Your task to perform on an android device: find which apps use the phone's location Image 0: 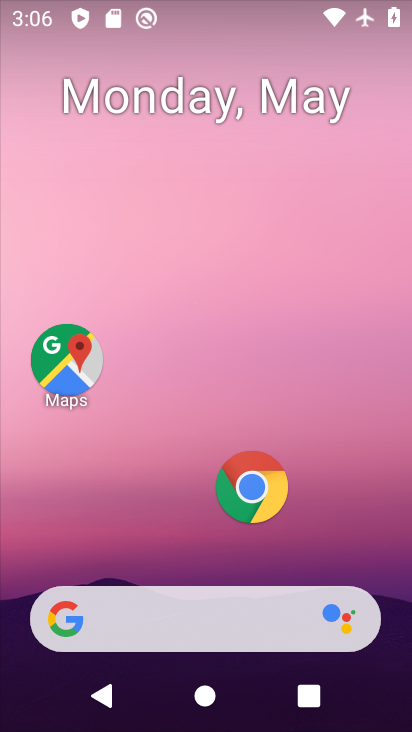
Step 0: drag from (143, 545) to (245, 2)
Your task to perform on an android device: find which apps use the phone's location Image 1: 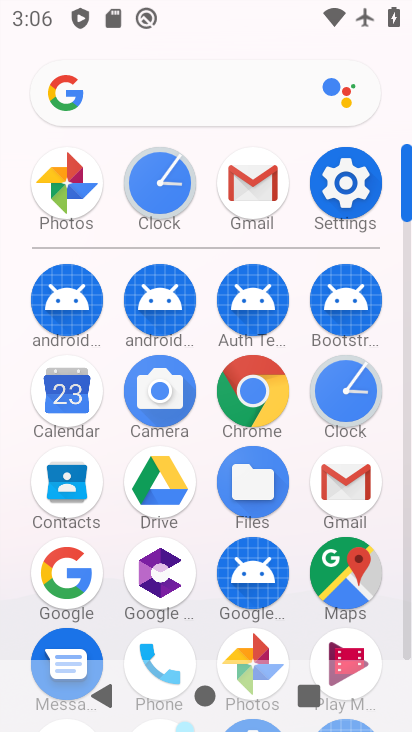
Step 1: click (334, 186)
Your task to perform on an android device: find which apps use the phone's location Image 2: 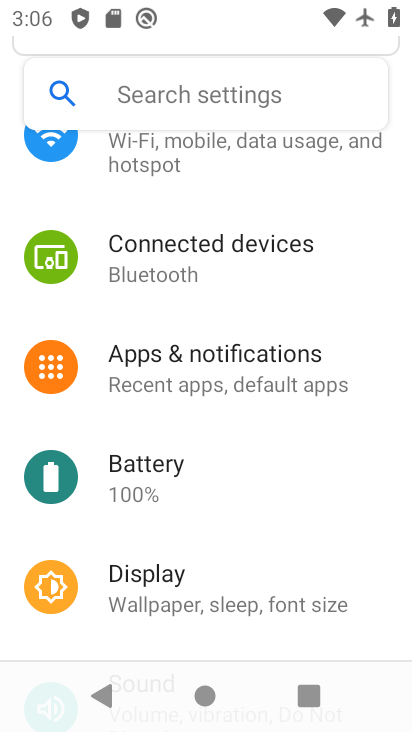
Step 2: drag from (167, 543) to (163, 325)
Your task to perform on an android device: find which apps use the phone's location Image 3: 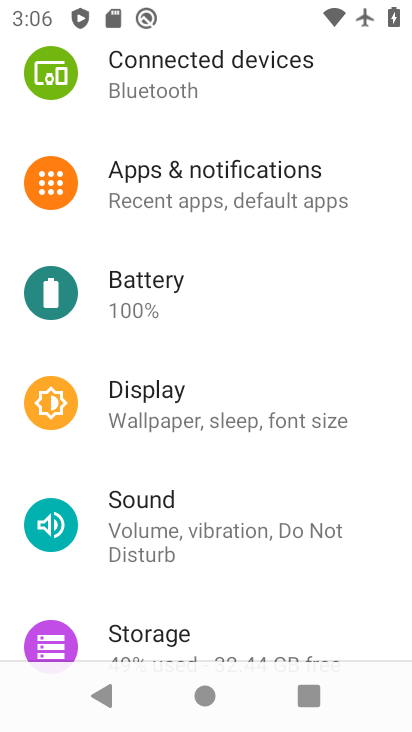
Step 3: drag from (203, 528) to (213, 356)
Your task to perform on an android device: find which apps use the phone's location Image 4: 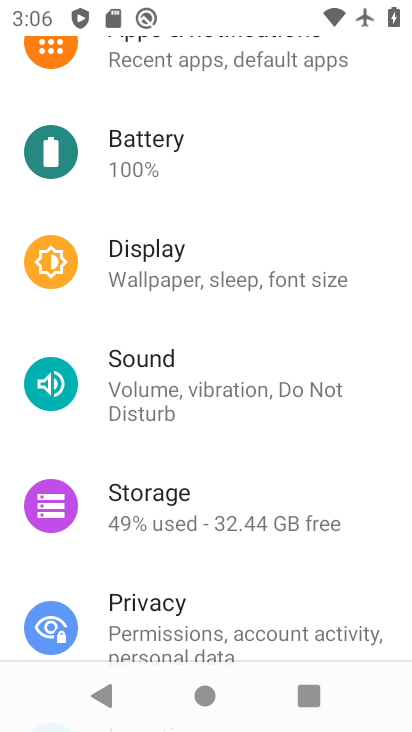
Step 4: drag from (231, 557) to (214, 317)
Your task to perform on an android device: find which apps use the phone's location Image 5: 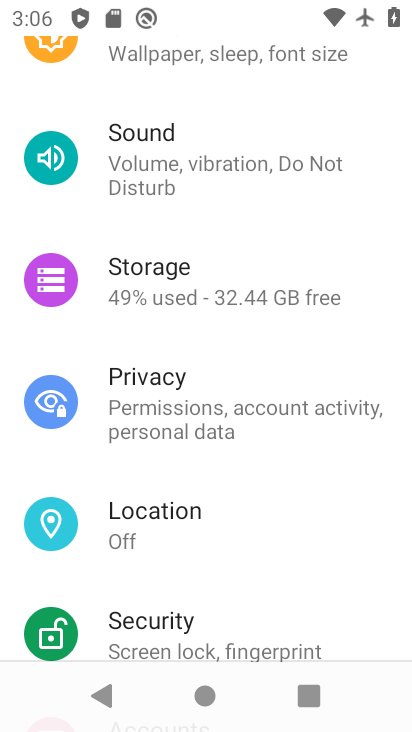
Step 5: click (161, 524)
Your task to perform on an android device: find which apps use the phone's location Image 6: 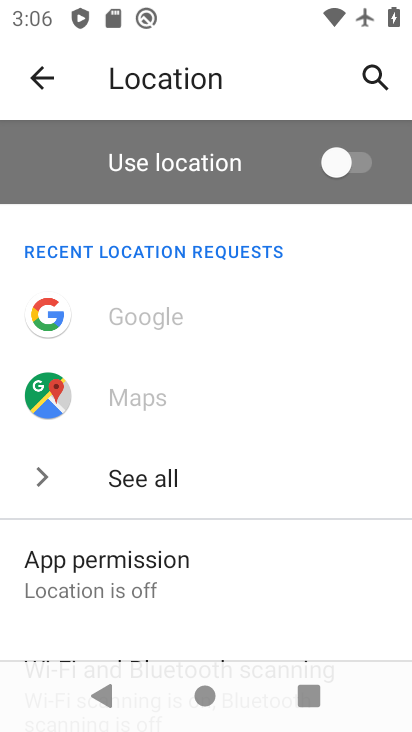
Step 6: drag from (130, 622) to (147, 454)
Your task to perform on an android device: find which apps use the phone's location Image 7: 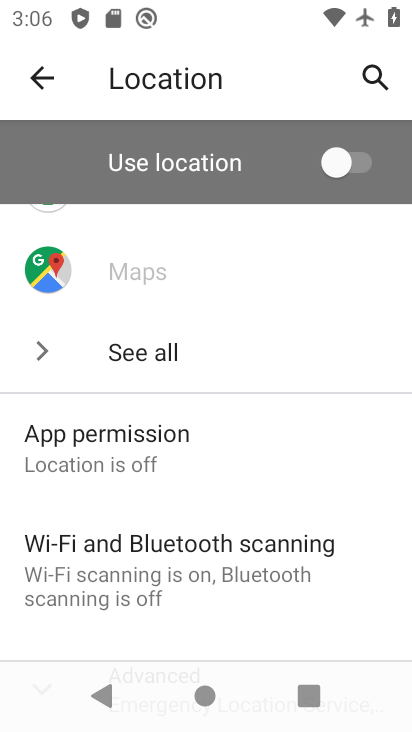
Step 7: click (91, 457)
Your task to perform on an android device: find which apps use the phone's location Image 8: 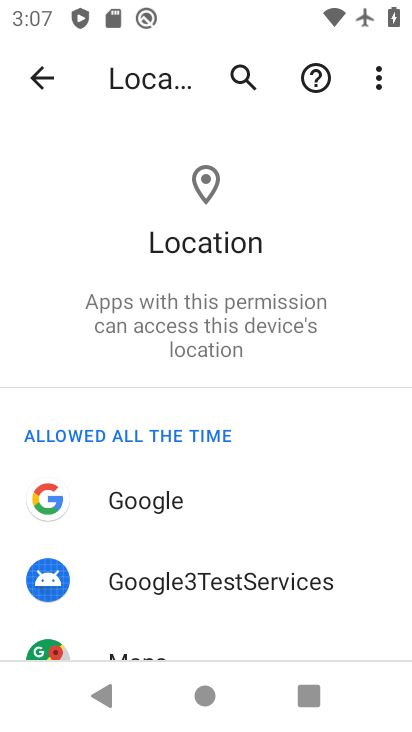
Step 8: task complete